Your task to perform on an android device: turn on improve location accuracy Image 0: 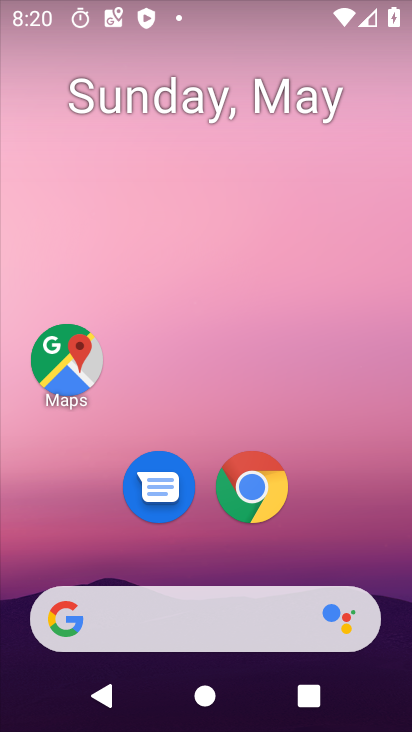
Step 0: drag from (19, 462) to (211, 89)
Your task to perform on an android device: turn on improve location accuracy Image 1: 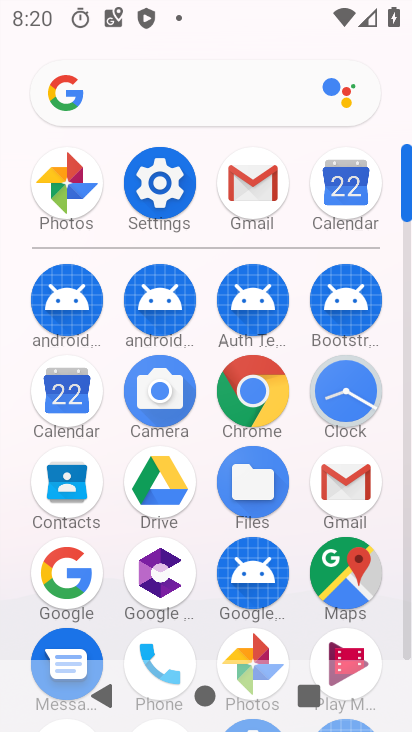
Step 1: click (137, 167)
Your task to perform on an android device: turn on improve location accuracy Image 2: 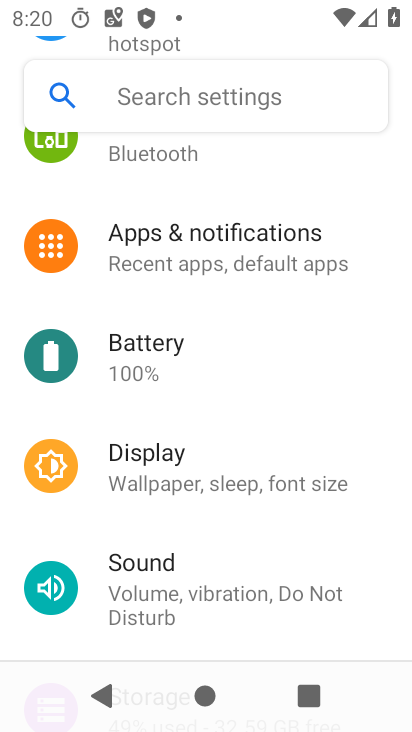
Step 2: drag from (6, 543) to (168, 203)
Your task to perform on an android device: turn on improve location accuracy Image 3: 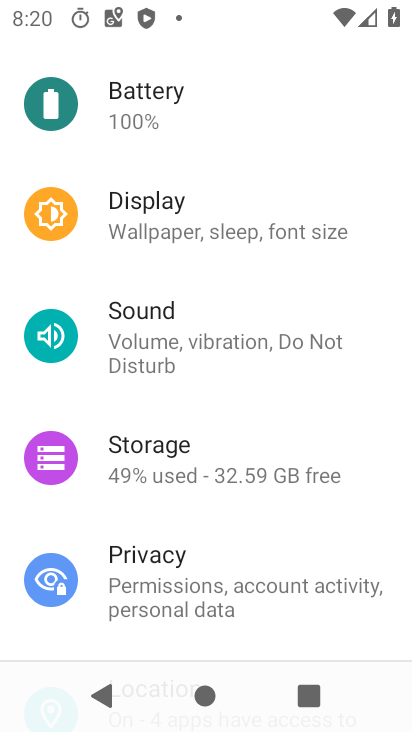
Step 3: drag from (21, 500) to (143, 209)
Your task to perform on an android device: turn on improve location accuracy Image 4: 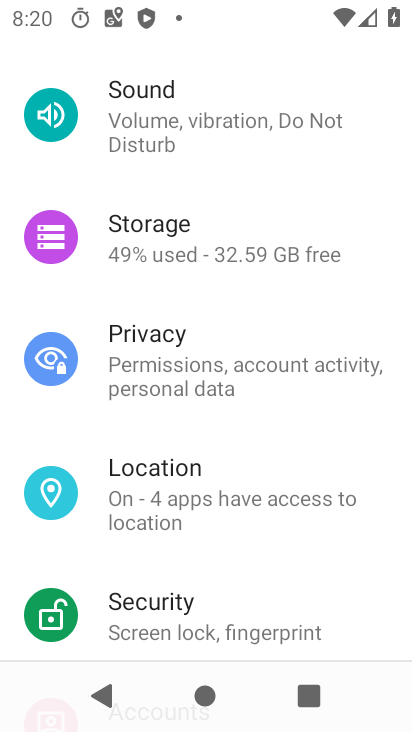
Step 4: click (138, 480)
Your task to perform on an android device: turn on improve location accuracy Image 5: 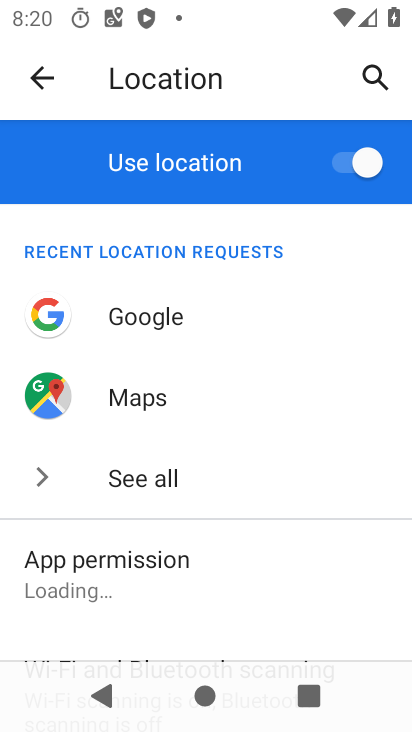
Step 5: drag from (24, 479) to (189, 142)
Your task to perform on an android device: turn on improve location accuracy Image 6: 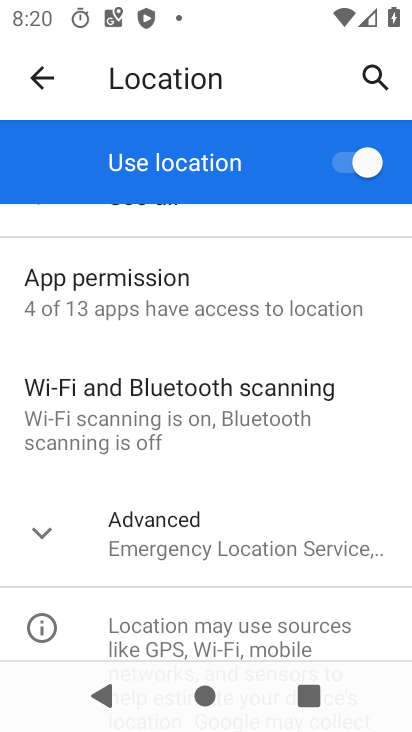
Step 6: click (213, 524)
Your task to perform on an android device: turn on improve location accuracy Image 7: 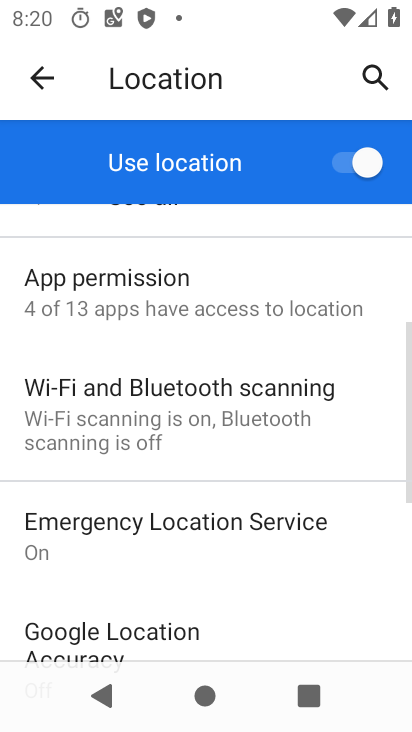
Step 7: task complete